Your task to perform on an android device: Is it going to rain today? Image 0: 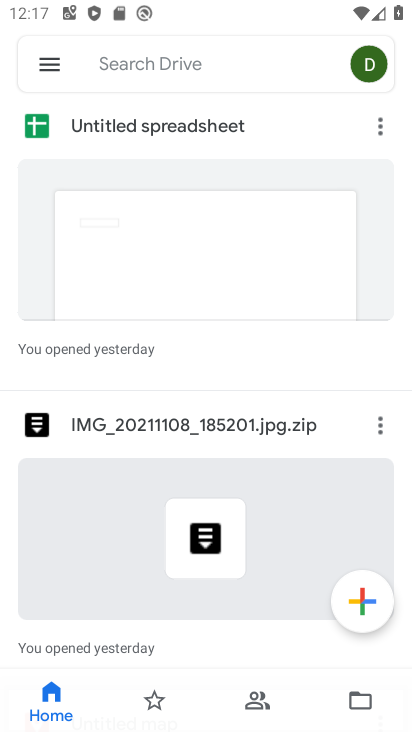
Step 0: press back button
Your task to perform on an android device: Is it going to rain today? Image 1: 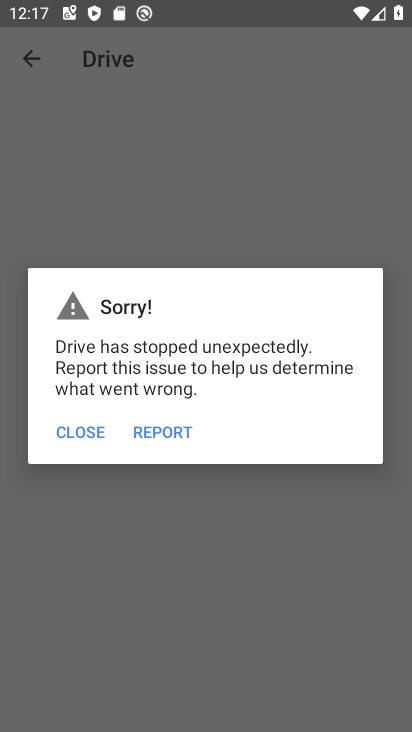
Step 1: press home button
Your task to perform on an android device: Is it going to rain today? Image 2: 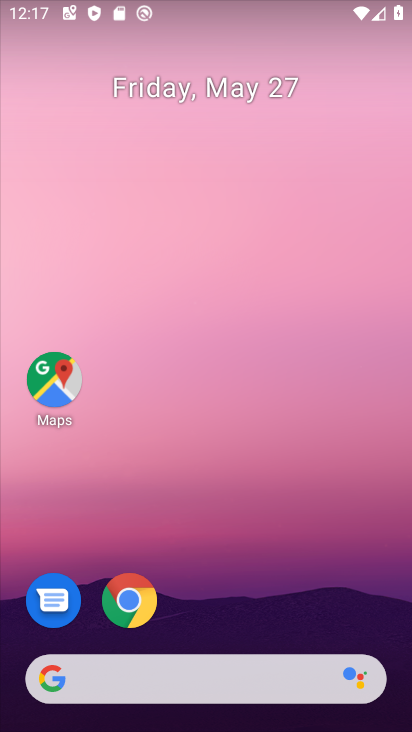
Step 2: drag from (244, 562) to (219, 33)
Your task to perform on an android device: Is it going to rain today? Image 3: 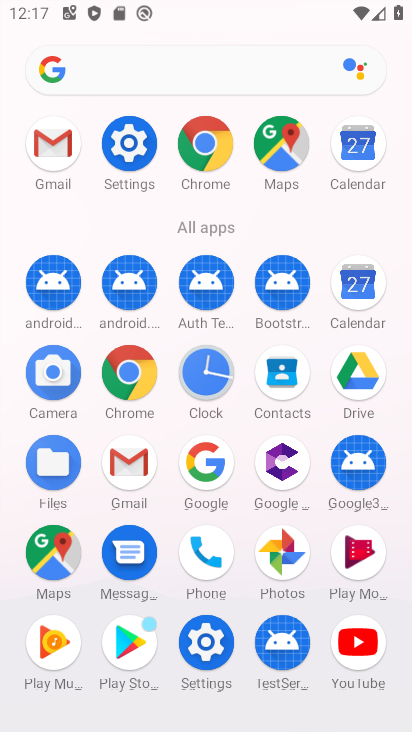
Step 3: click (128, 373)
Your task to perform on an android device: Is it going to rain today? Image 4: 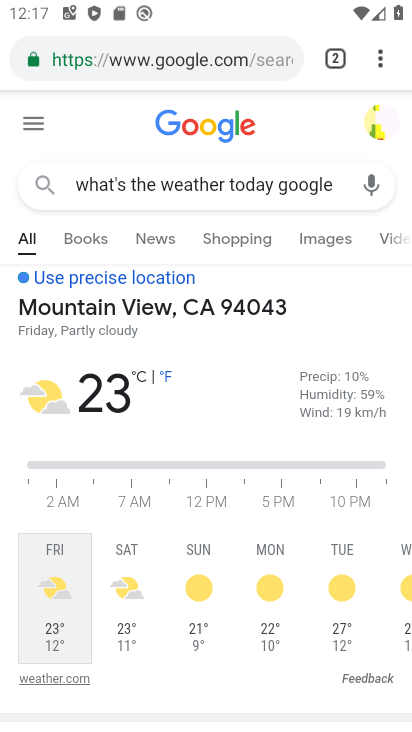
Step 4: click (181, 48)
Your task to perform on an android device: Is it going to rain today? Image 5: 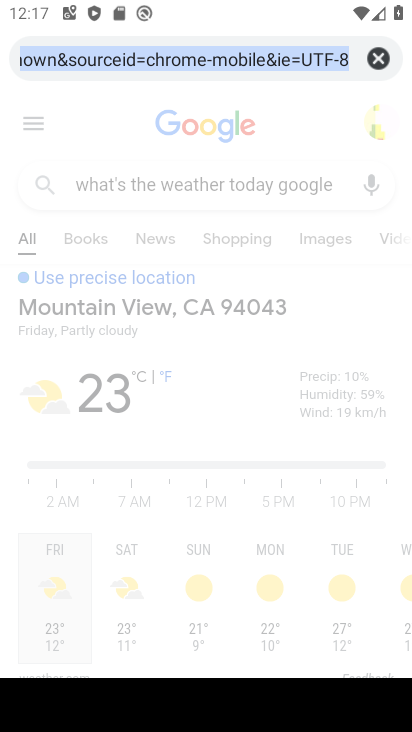
Step 5: click (380, 54)
Your task to perform on an android device: Is it going to rain today? Image 6: 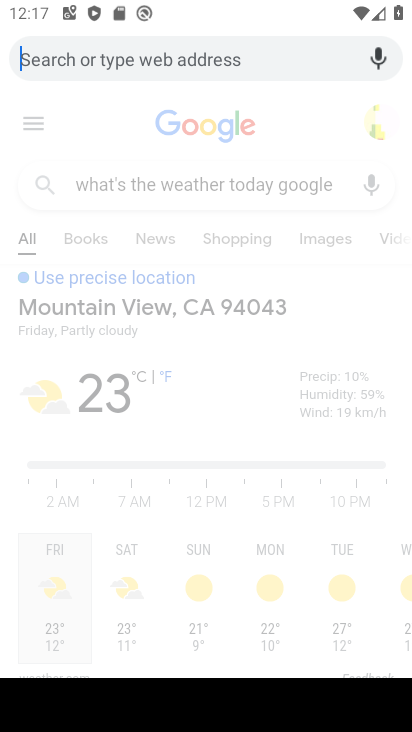
Step 6: type "Is it going to rain today?"
Your task to perform on an android device: Is it going to rain today? Image 7: 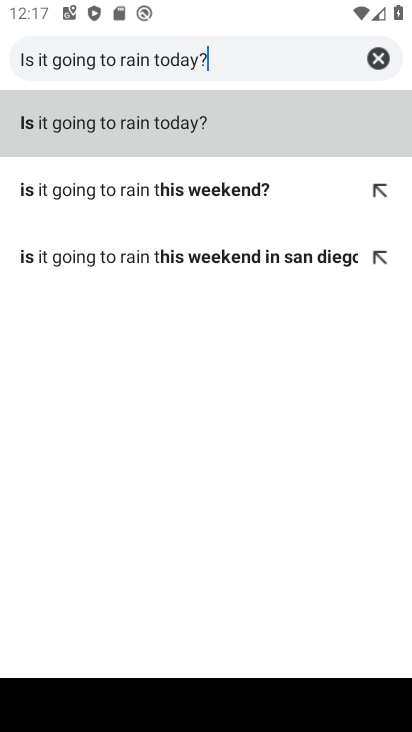
Step 7: type ""
Your task to perform on an android device: Is it going to rain today? Image 8: 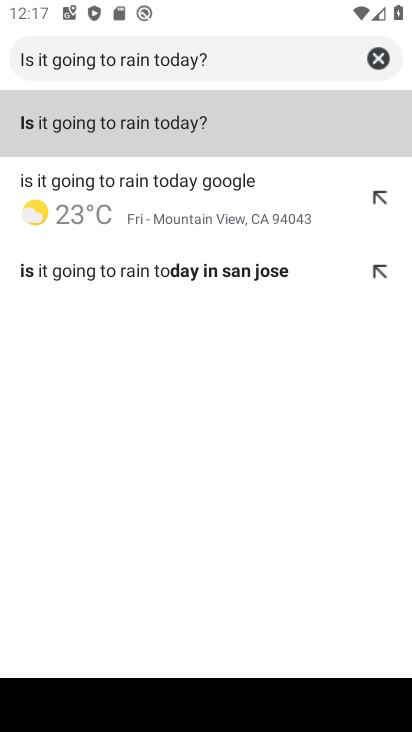
Step 8: click (184, 190)
Your task to perform on an android device: Is it going to rain today? Image 9: 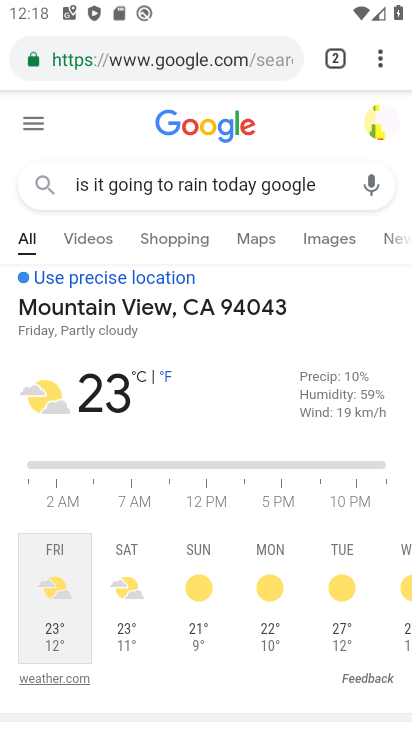
Step 9: task complete